Your task to perform on an android device: Open the calendar app, open the side menu, and click the "Day" option Image 0: 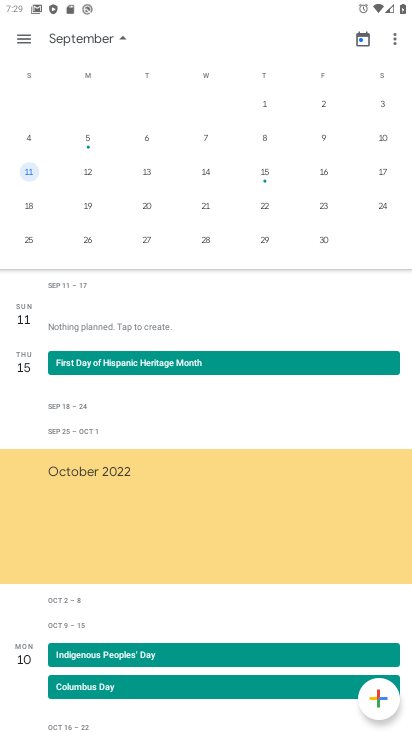
Step 0: press home button
Your task to perform on an android device: Open the calendar app, open the side menu, and click the "Day" option Image 1: 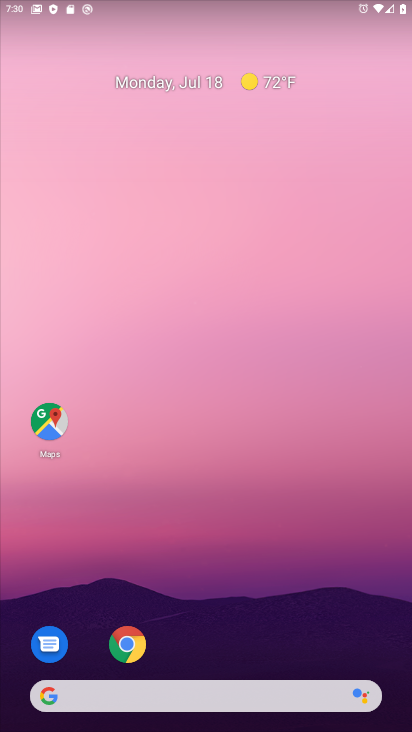
Step 1: drag from (370, 639) to (197, 54)
Your task to perform on an android device: Open the calendar app, open the side menu, and click the "Day" option Image 2: 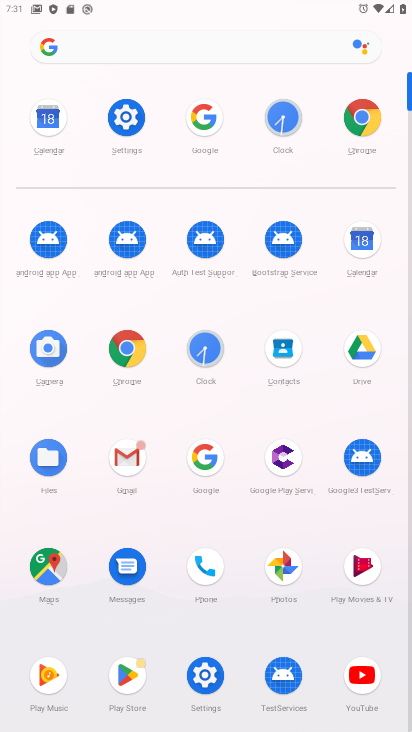
Step 2: click (354, 233)
Your task to perform on an android device: Open the calendar app, open the side menu, and click the "Day" option Image 3: 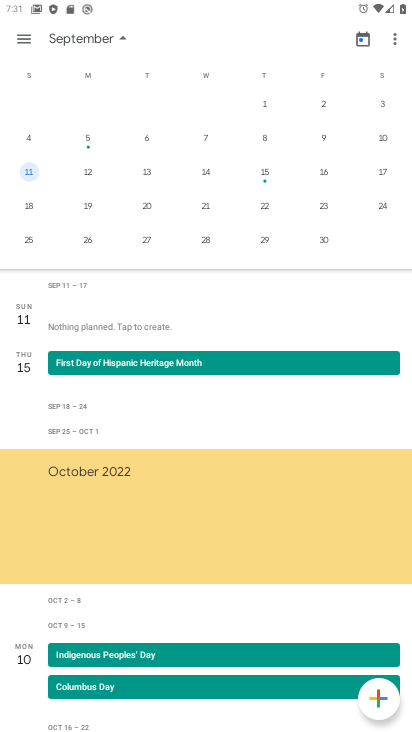
Step 3: click (26, 37)
Your task to perform on an android device: Open the calendar app, open the side menu, and click the "Day" option Image 4: 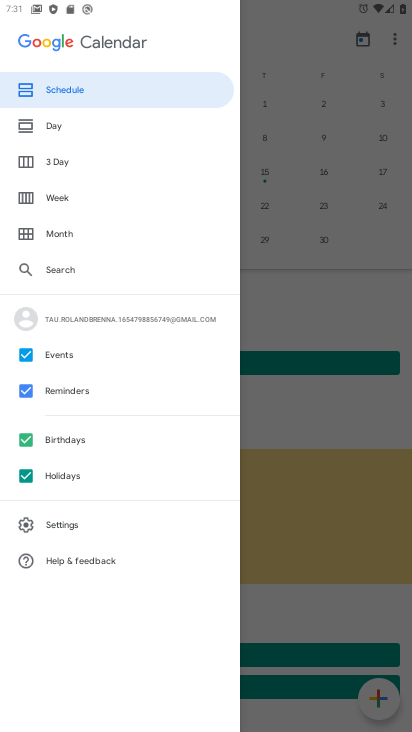
Step 4: click (55, 124)
Your task to perform on an android device: Open the calendar app, open the side menu, and click the "Day" option Image 5: 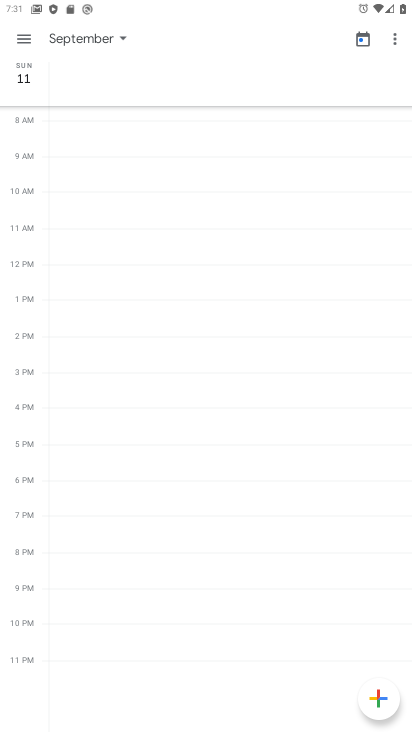
Step 5: task complete